Your task to perform on an android device: choose inbox layout in the gmail app Image 0: 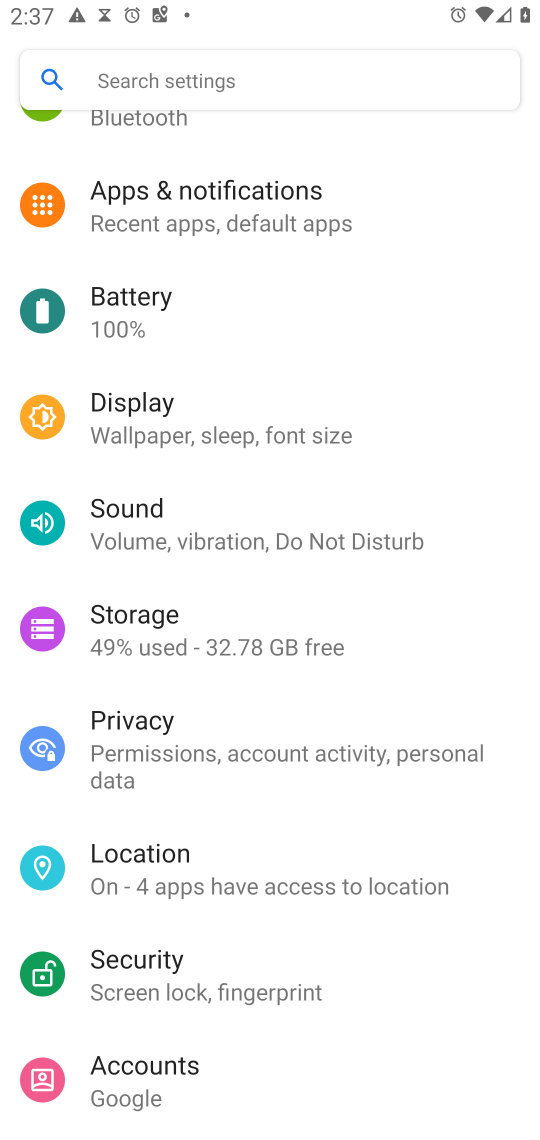
Step 0: press home button
Your task to perform on an android device: choose inbox layout in the gmail app Image 1: 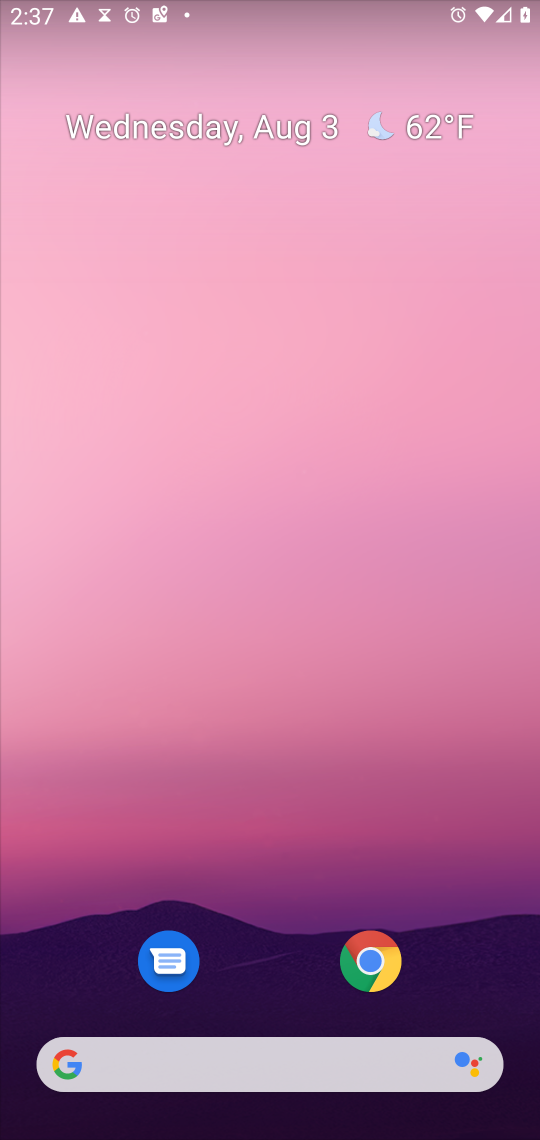
Step 1: drag from (311, 754) to (330, 44)
Your task to perform on an android device: choose inbox layout in the gmail app Image 2: 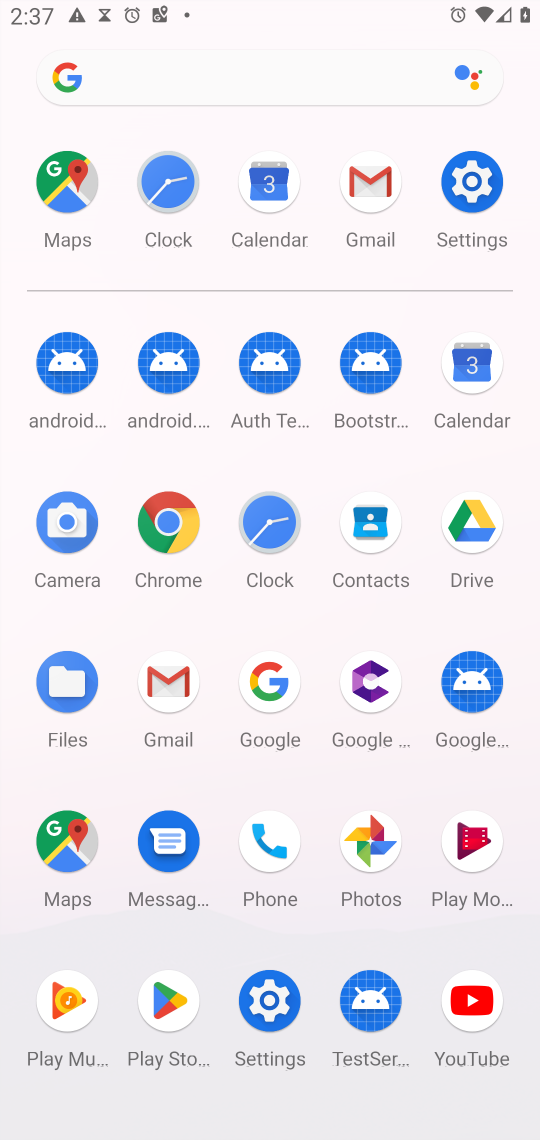
Step 2: click (174, 669)
Your task to perform on an android device: choose inbox layout in the gmail app Image 3: 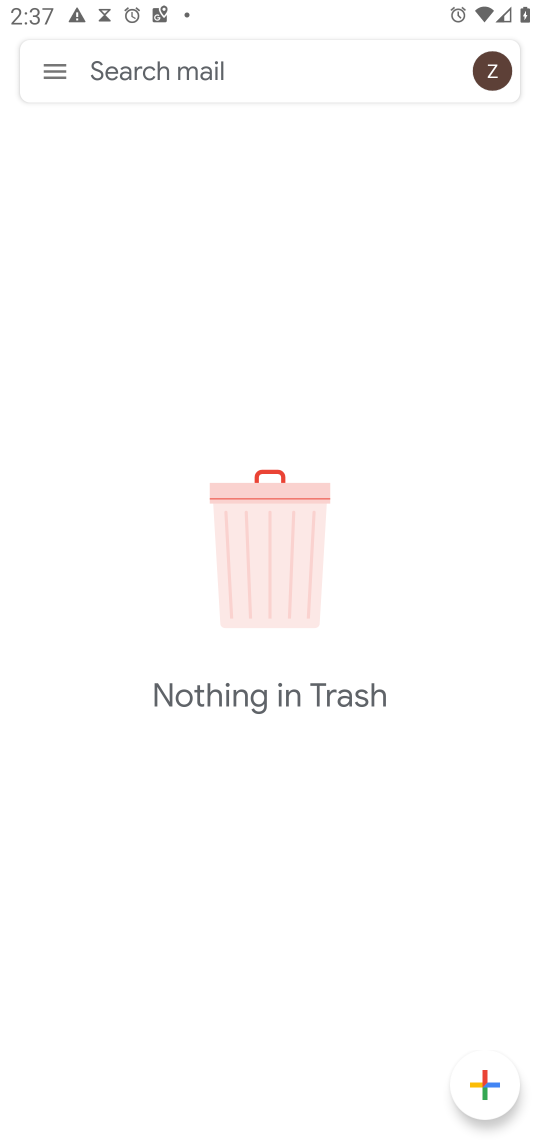
Step 3: click (73, 70)
Your task to perform on an android device: choose inbox layout in the gmail app Image 4: 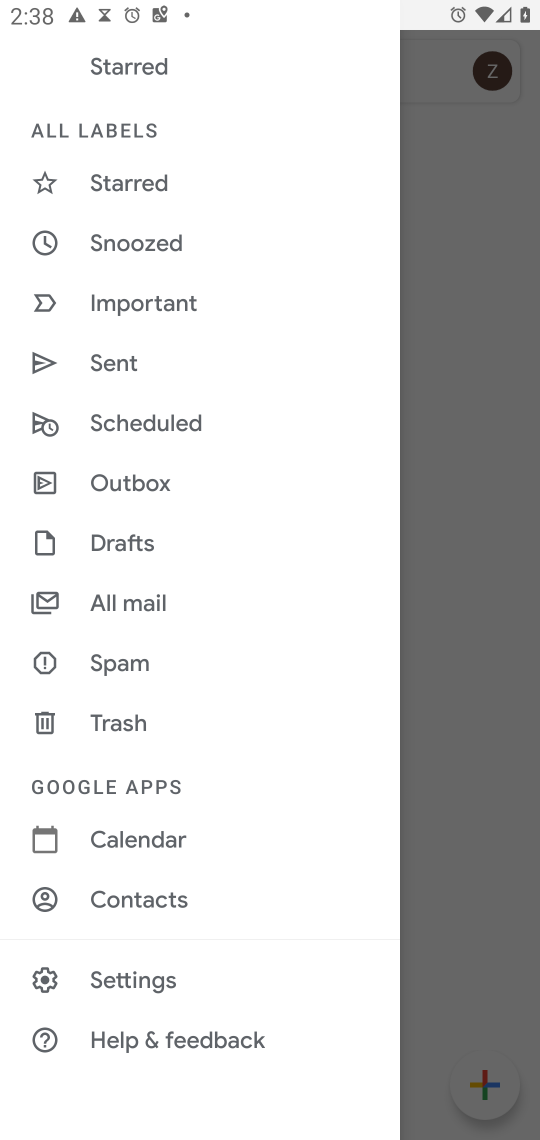
Step 4: click (125, 991)
Your task to perform on an android device: choose inbox layout in the gmail app Image 5: 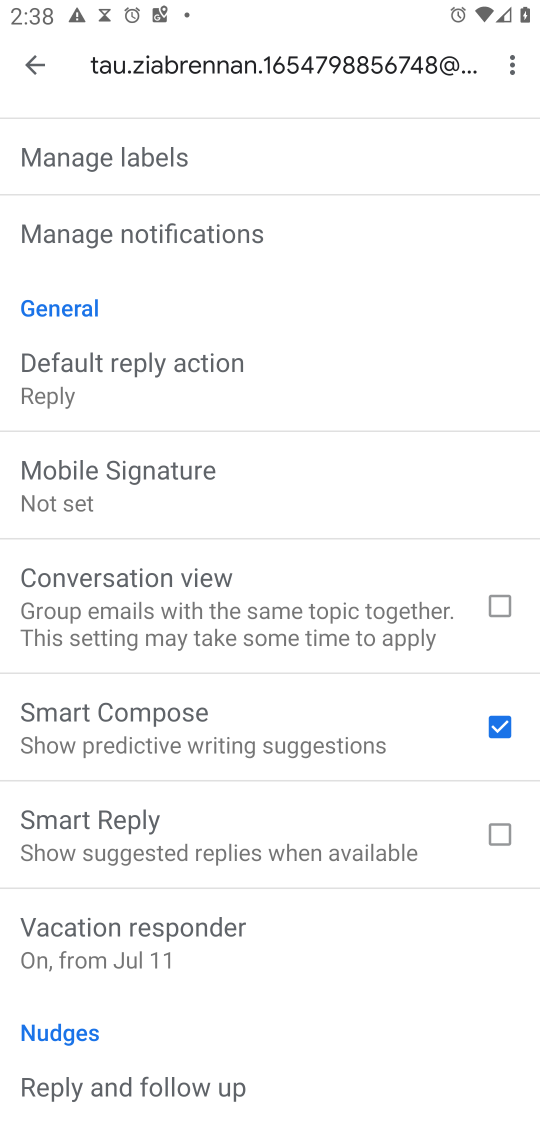
Step 5: drag from (415, 302) to (315, 933)
Your task to perform on an android device: choose inbox layout in the gmail app Image 6: 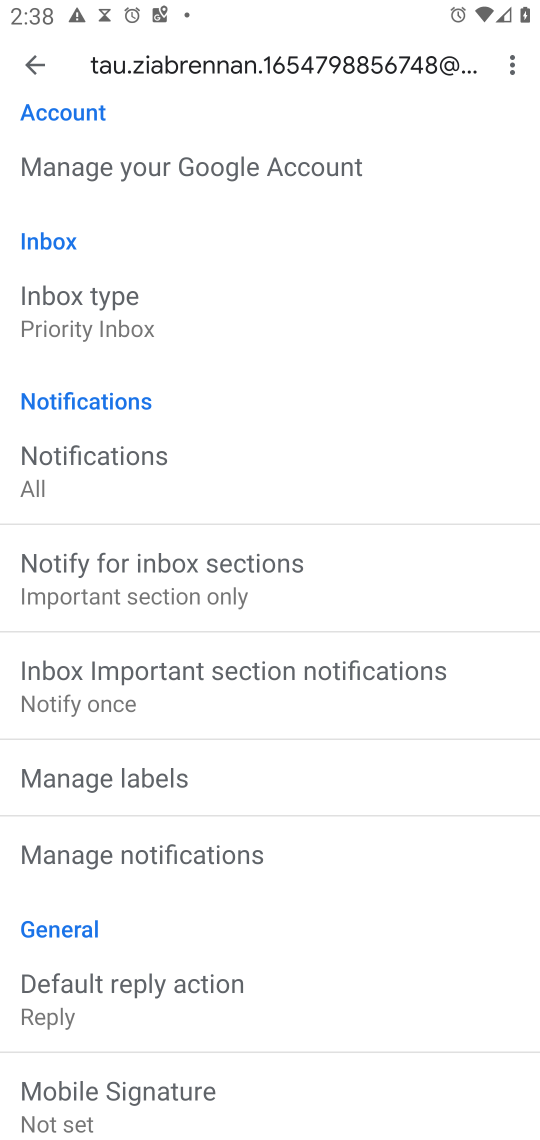
Step 6: drag from (422, 311) to (392, 848)
Your task to perform on an android device: choose inbox layout in the gmail app Image 7: 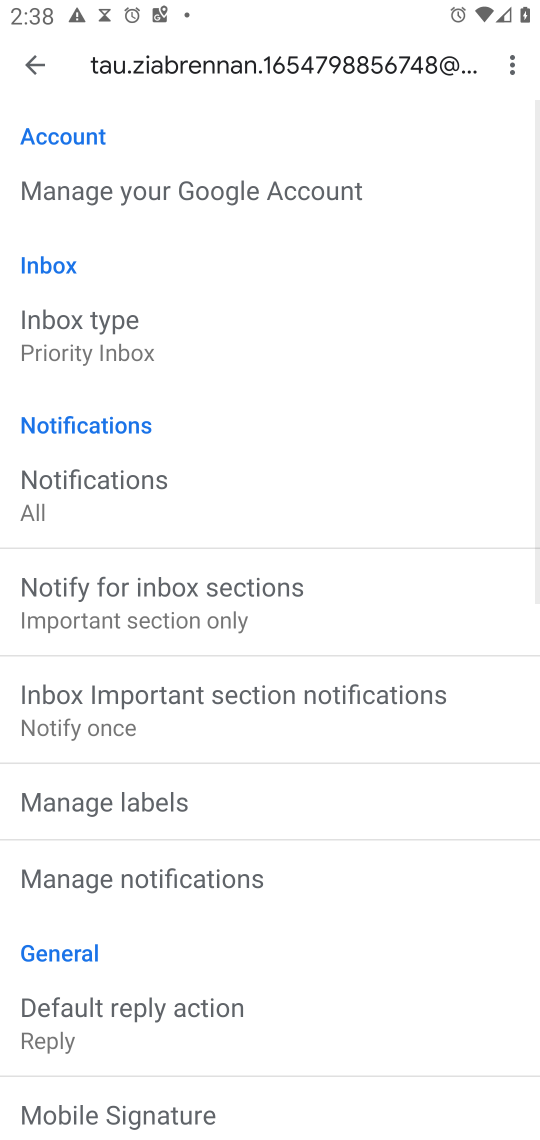
Step 7: click (103, 353)
Your task to perform on an android device: choose inbox layout in the gmail app Image 8: 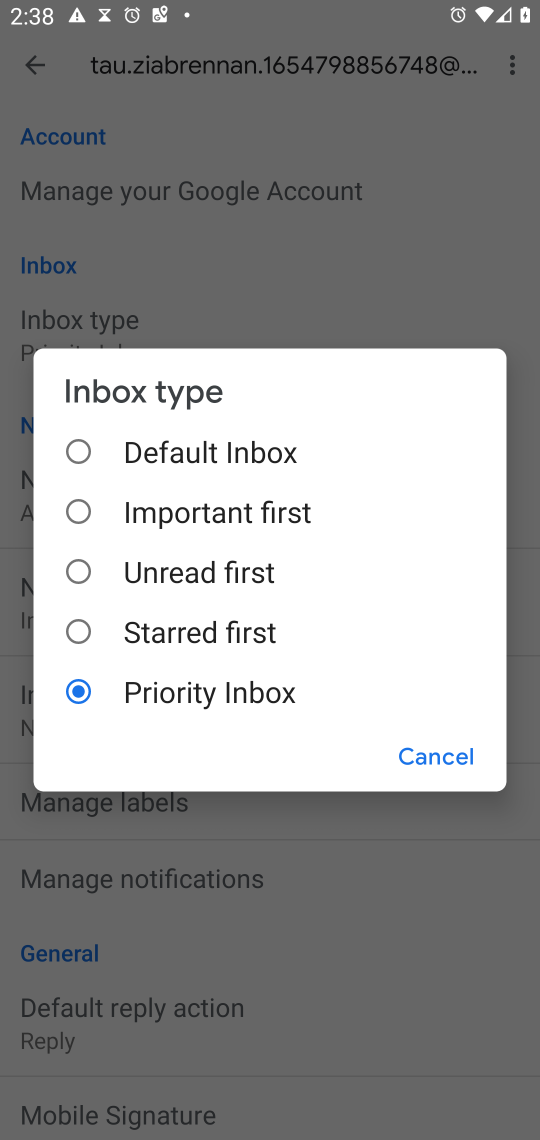
Step 8: click (74, 521)
Your task to perform on an android device: choose inbox layout in the gmail app Image 9: 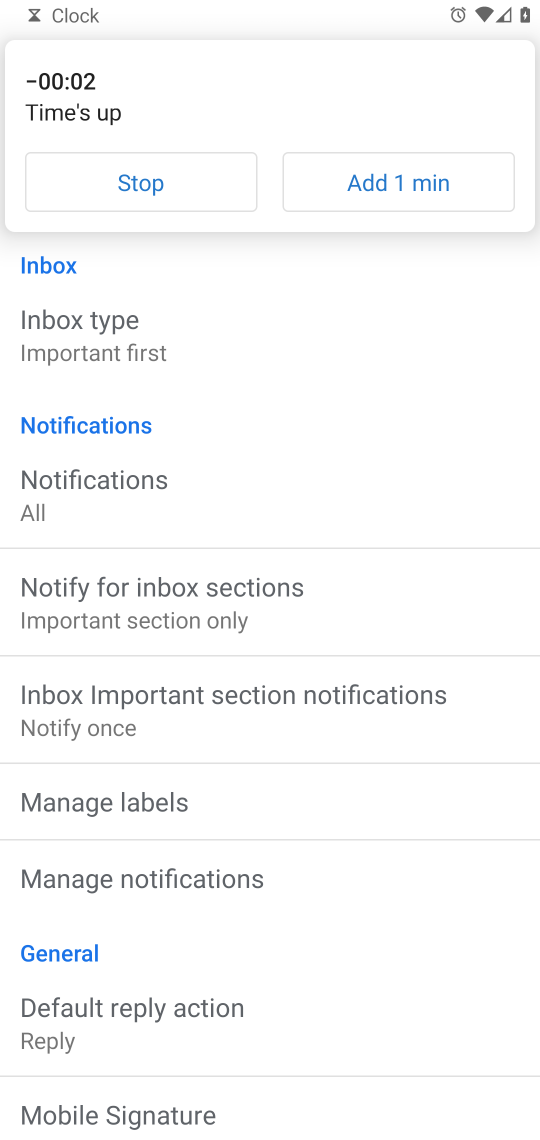
Step 9: task complete